Your task to perform on an android device: View the shopping cart on target. Image 0: 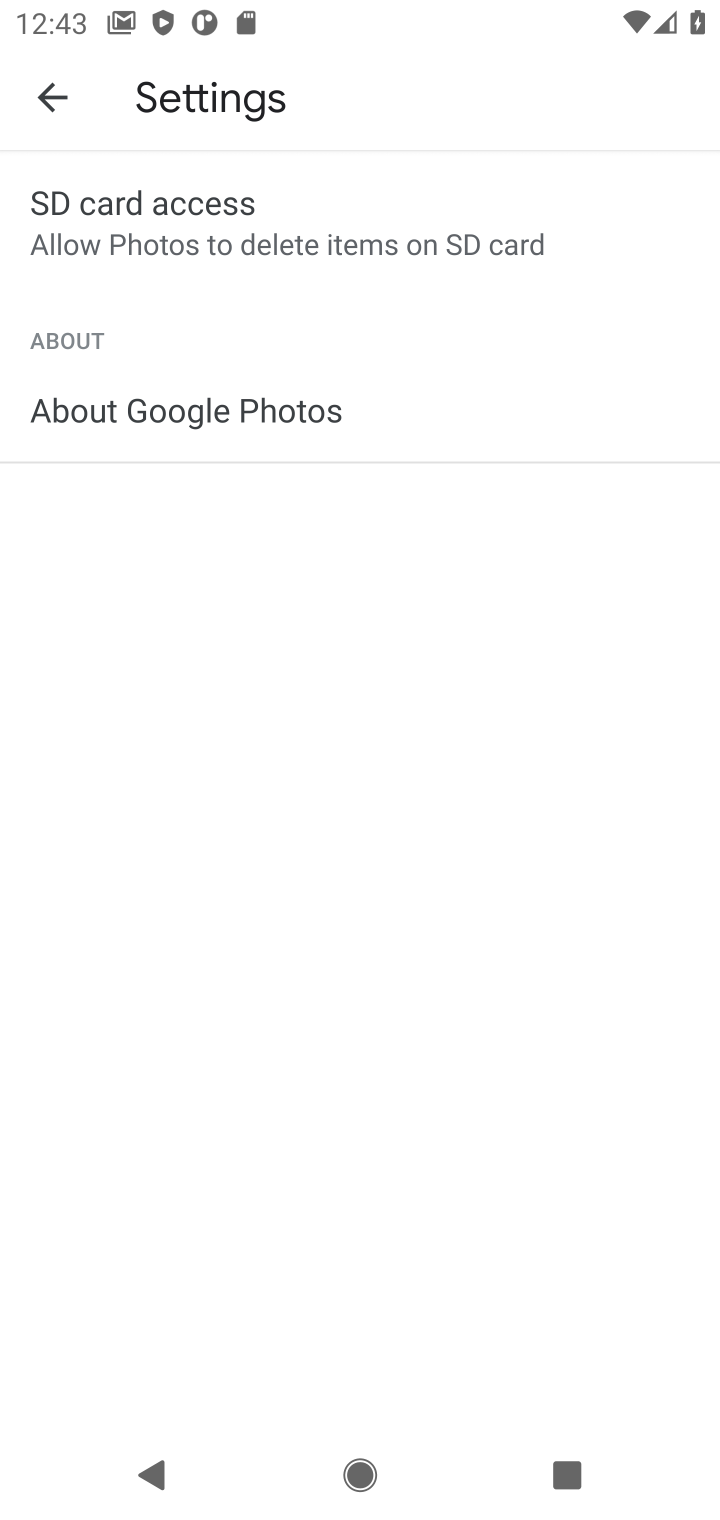
Step 0: press home button
Your task to perform on an android device: View the shopping cart on target. Image 1: 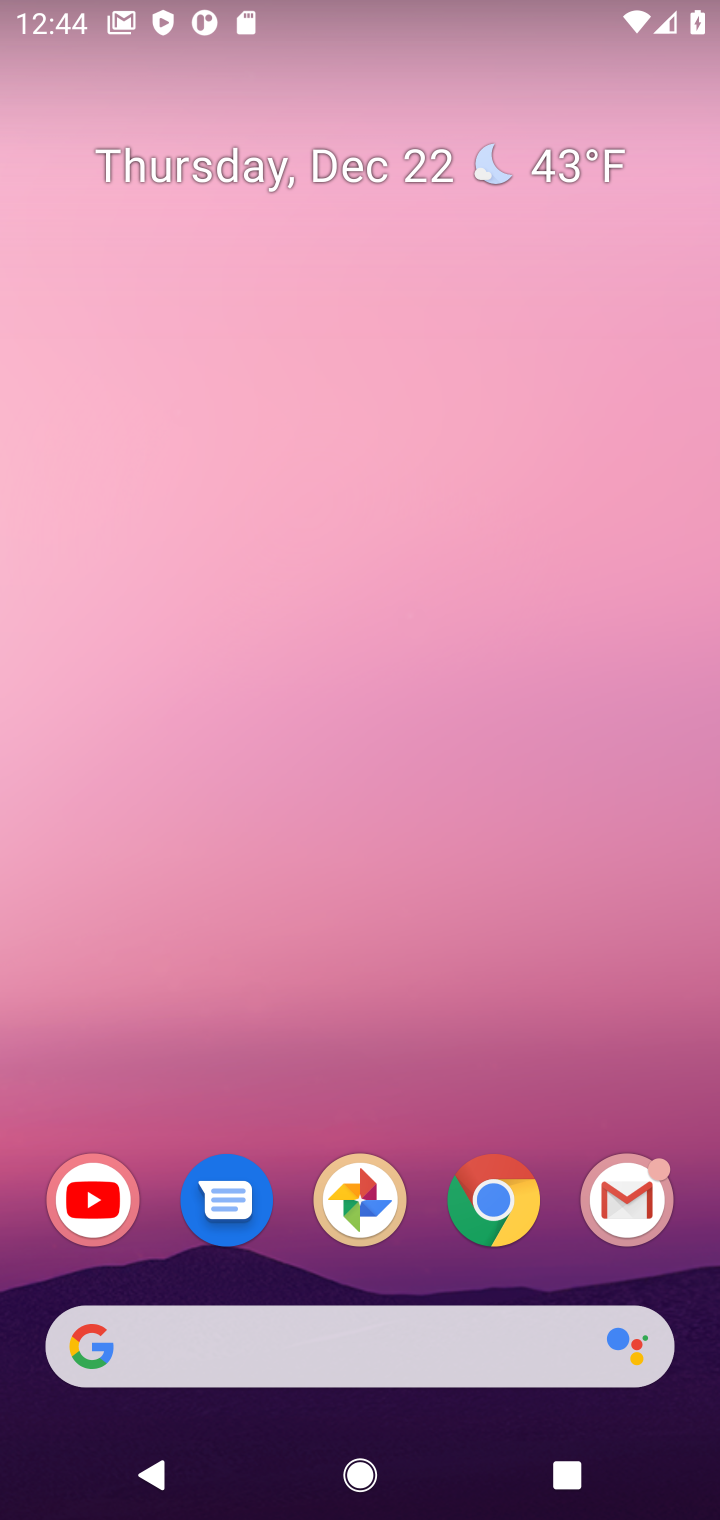
Step 1: click (496, 1202)
Your task to perform on an android device: View the shopping cart on target. Image 2: 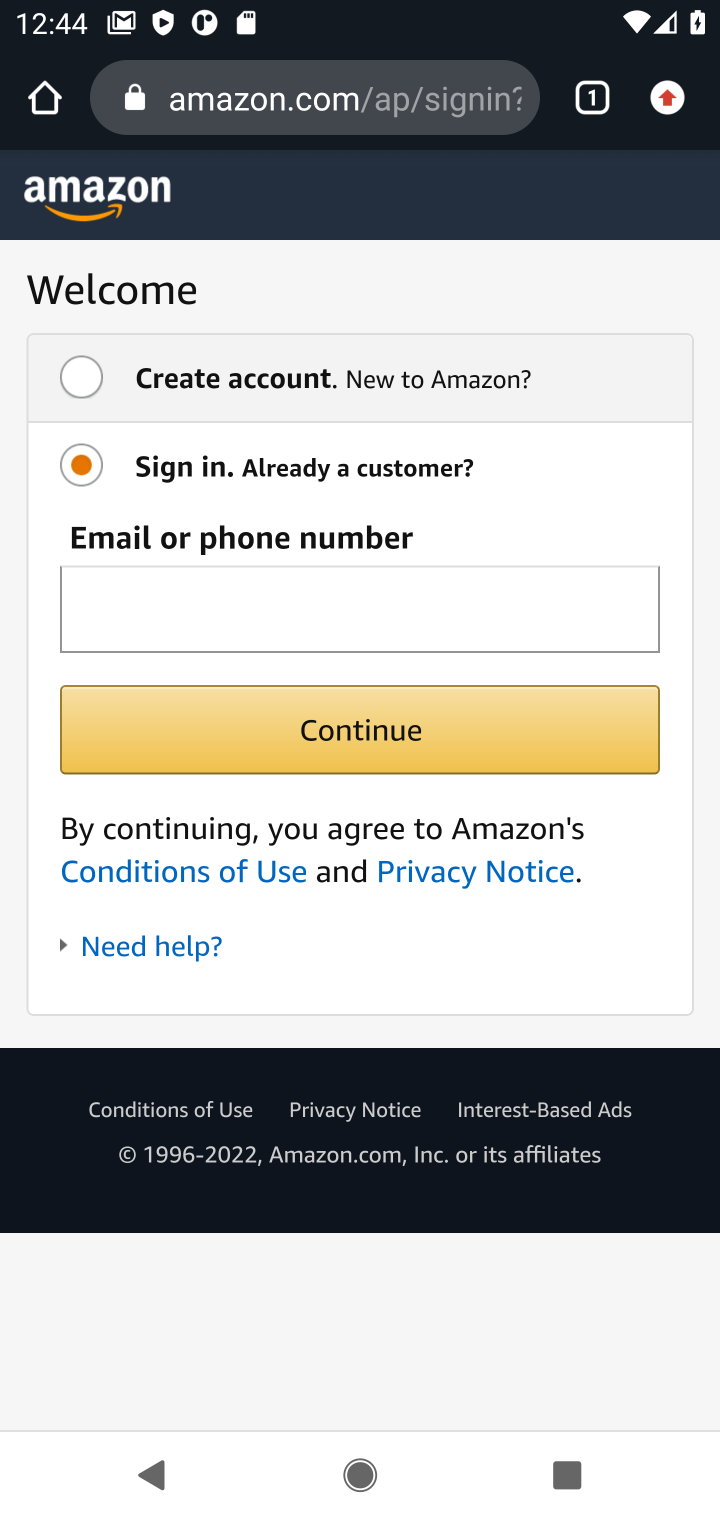
Step 2: click (234, 102)
Your task to perform on an android device: View the shopping cart on target. Image 3: 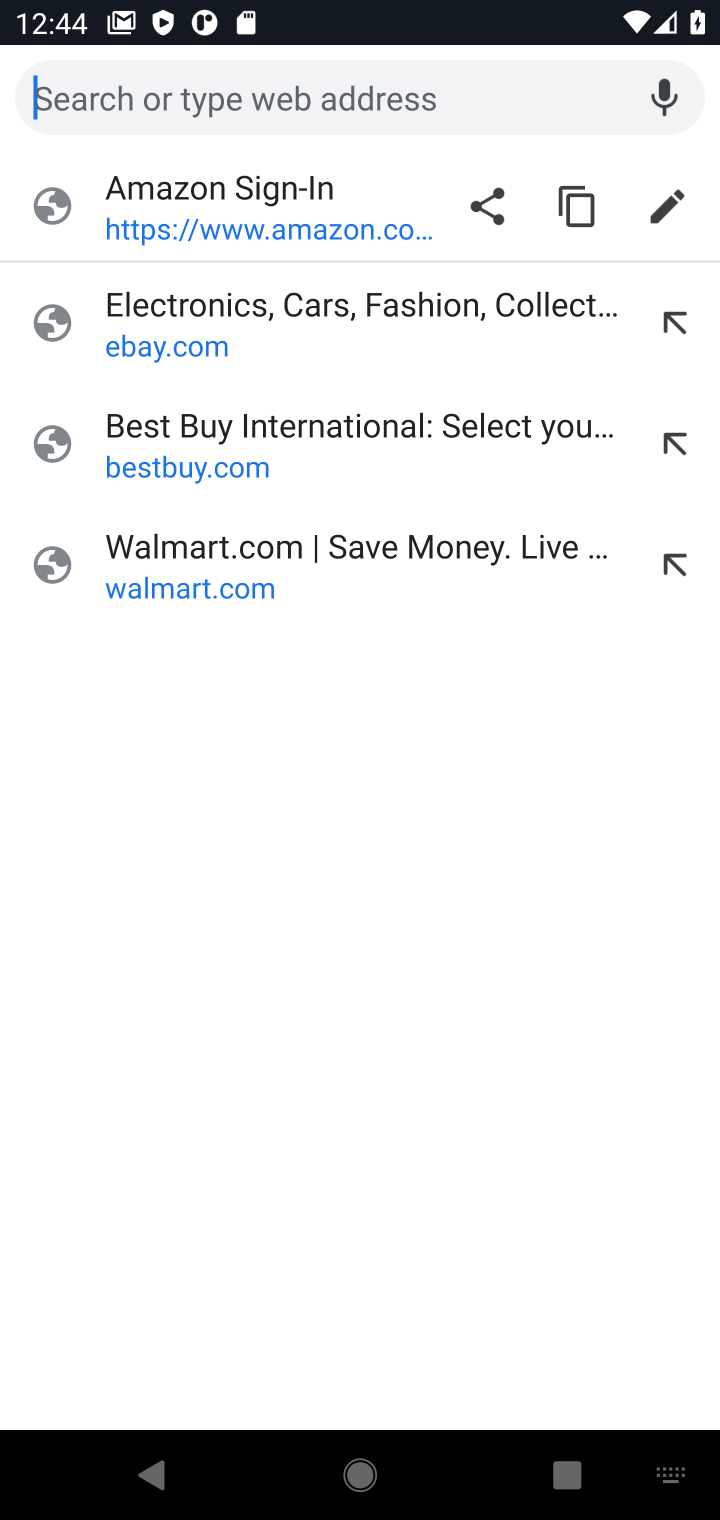
Step 3: type "target.com"
Your task to perform on an android device: View the shopping cart on target. Image 4: 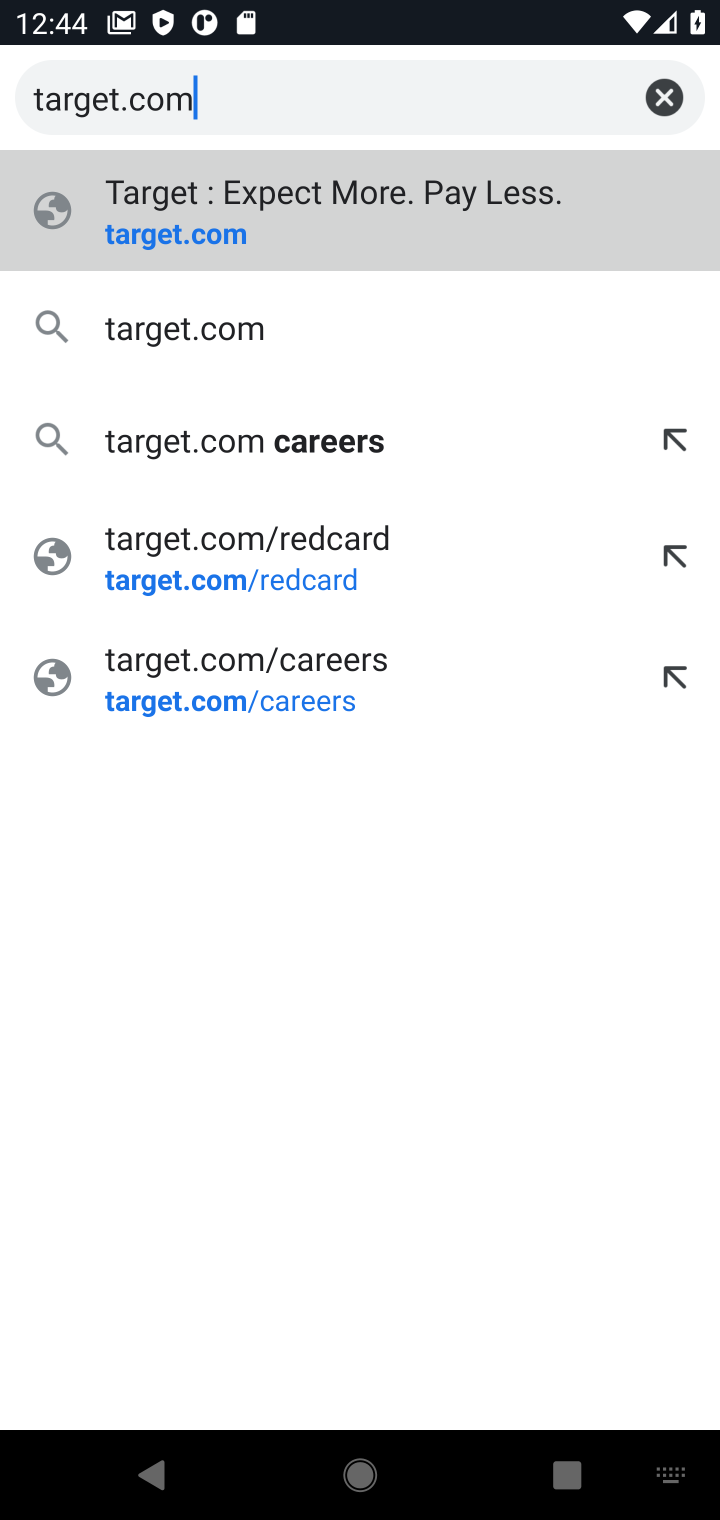
Step 4: click (152, 247)
Your task to perform on an android device: View the shopping cart on target. Image 5: 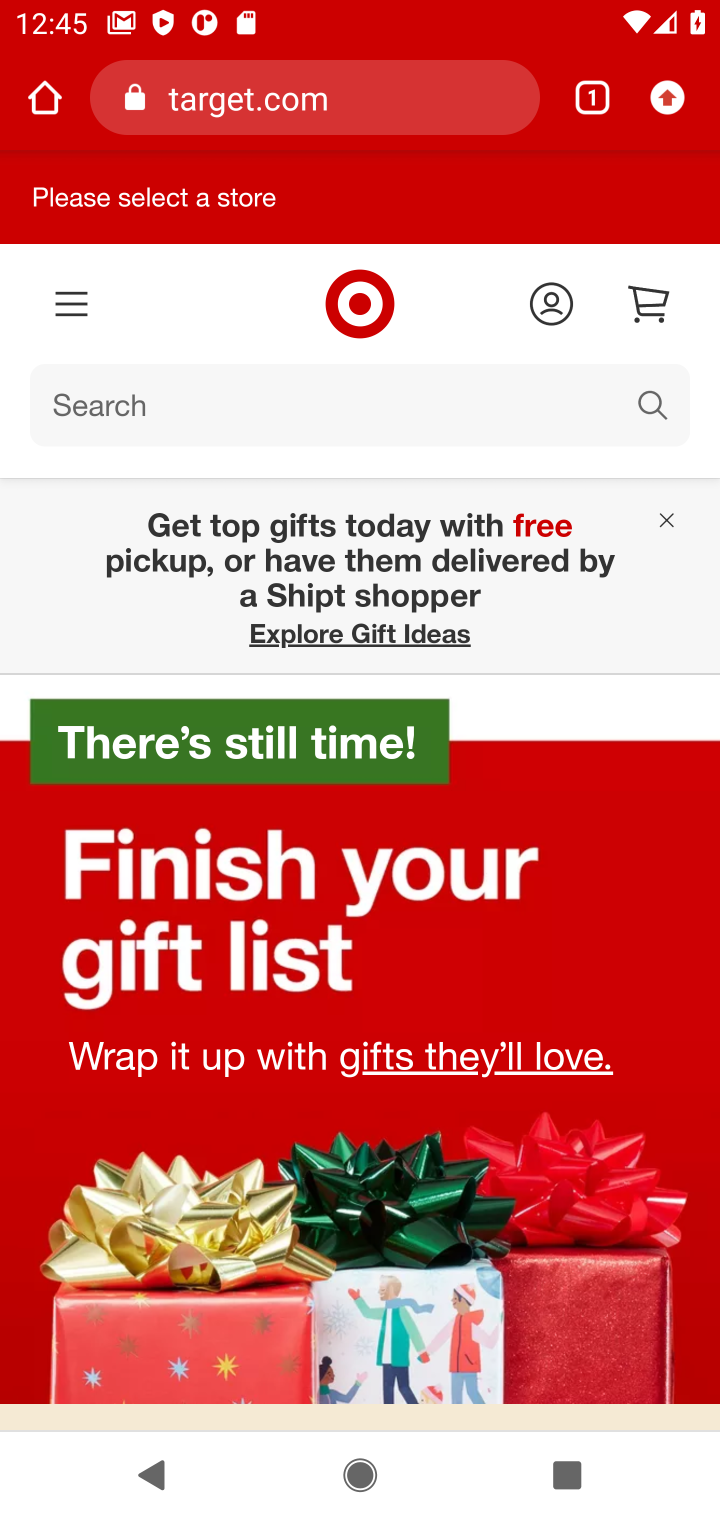
Step 5: click (655, 303)
Your task to perform on an android device: View the shopping cart on target. Image 6: 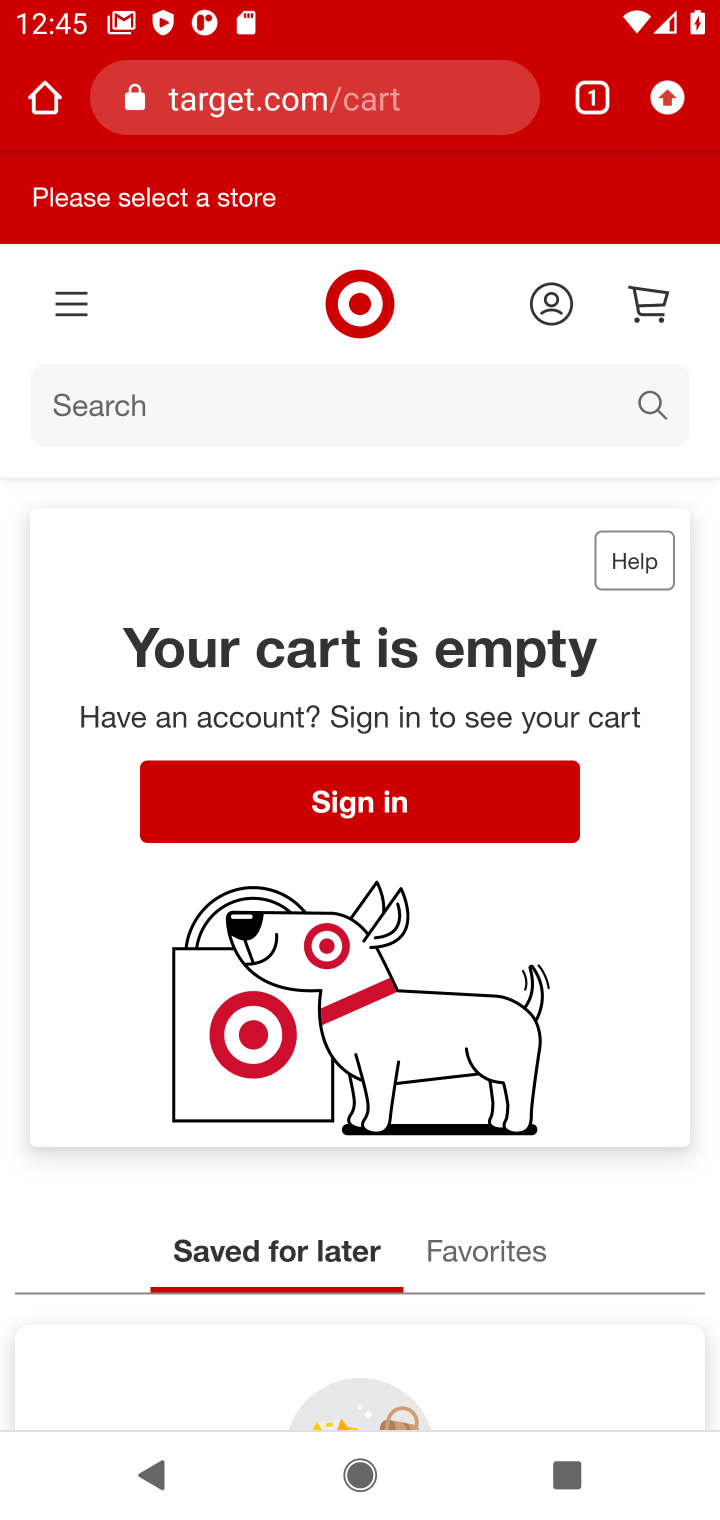
Step 6: task complete